Your task to perform on an android device: Go to battery settings Image 0: 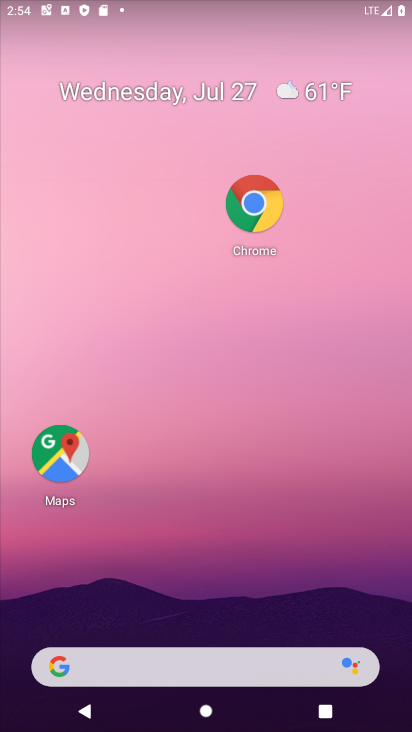
Step 0: drag from (212, 632) to (182, 153)
Your task to perform on an android device: Go to battery settings Image 1: 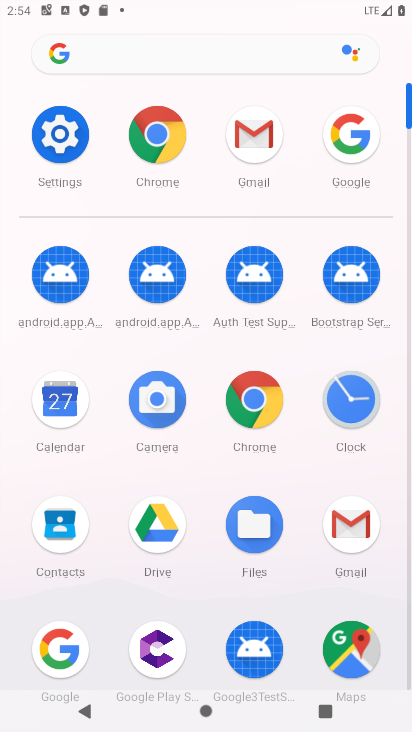
Step 1: click (71, 195)
Your task to perform on an android device: Go to battery settings Image 2: 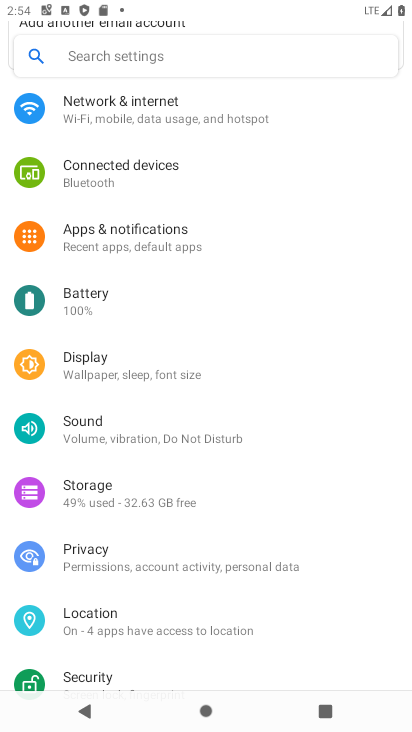
Step 2: click (111, 313)
Your task to perform on an android device: Go to battery settings Image 3: 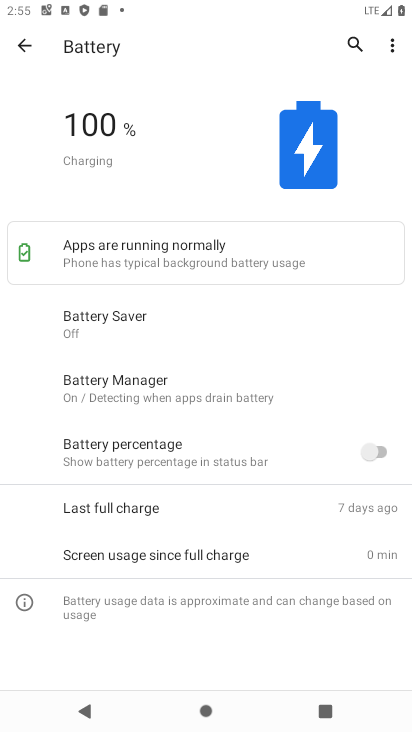
Step 3: task complete